Your task to perform on an android device: turn on javascript in the chrome app Image 0: 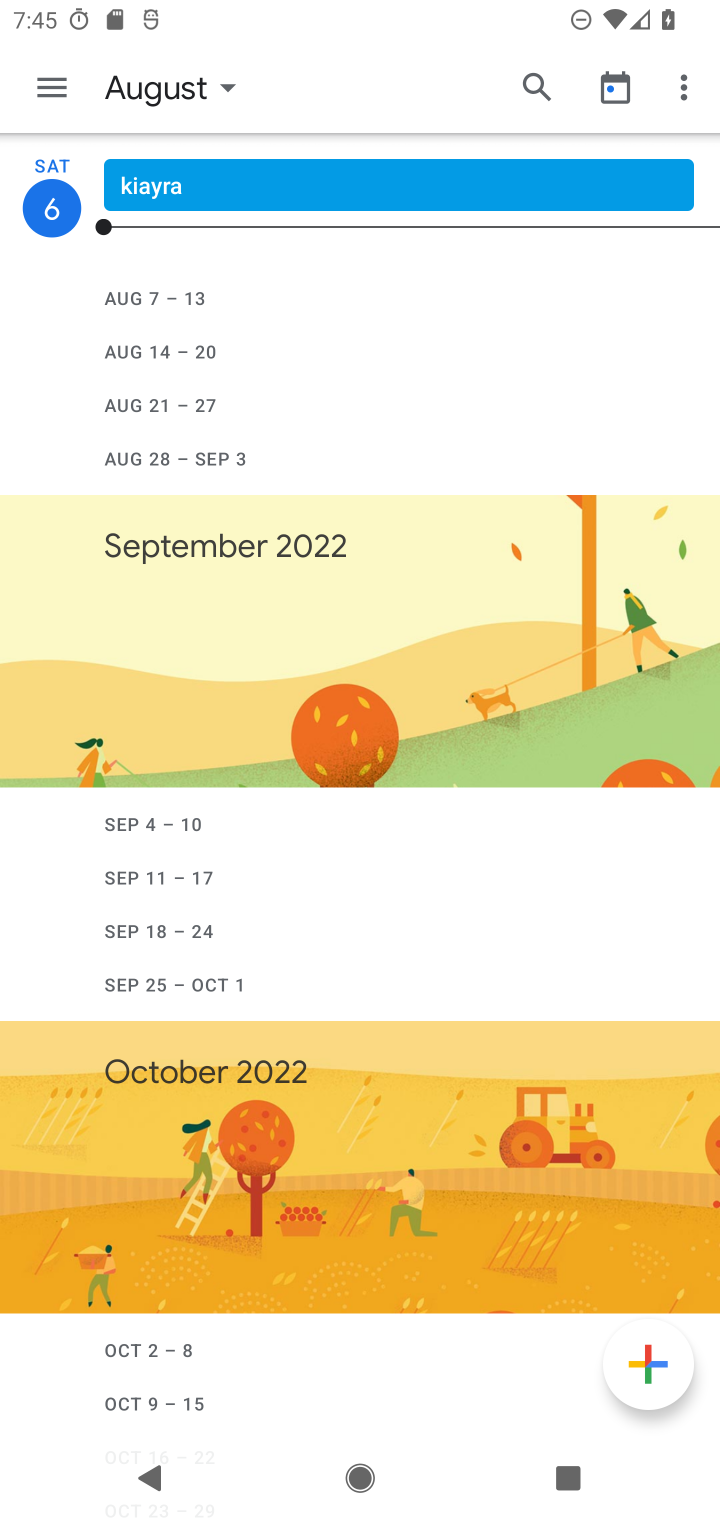
Step 0: press home button
Your task to perform on an android device: turn on javascript in the chrome app Image 1: 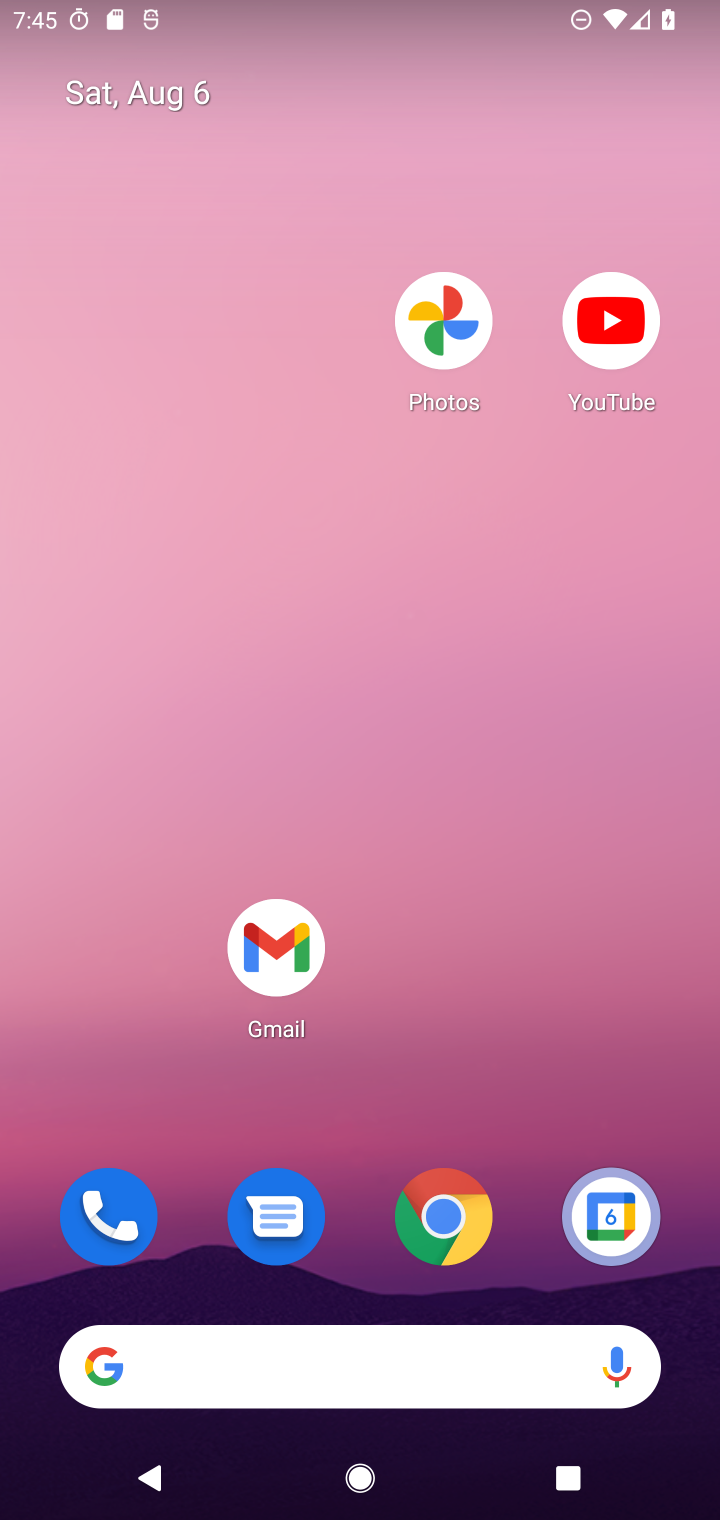
Step 1: drag from (443, 665) to (431, 126)
Your task to perform on an android device: turn on javascript in the chrome app Image 2: 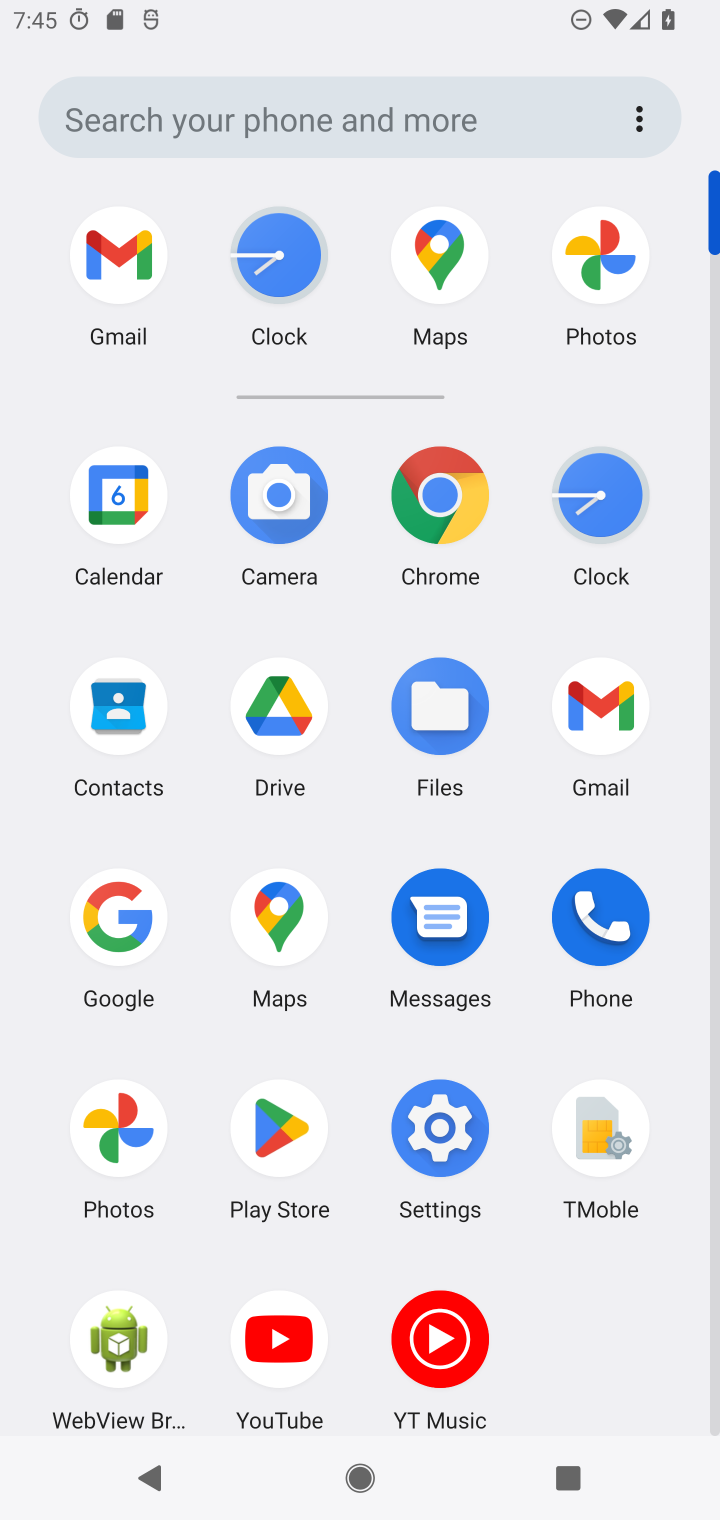
Step 2: click (430, 494)
Your task to perform on an android device: turn on javascript in the chrome app Image 3: 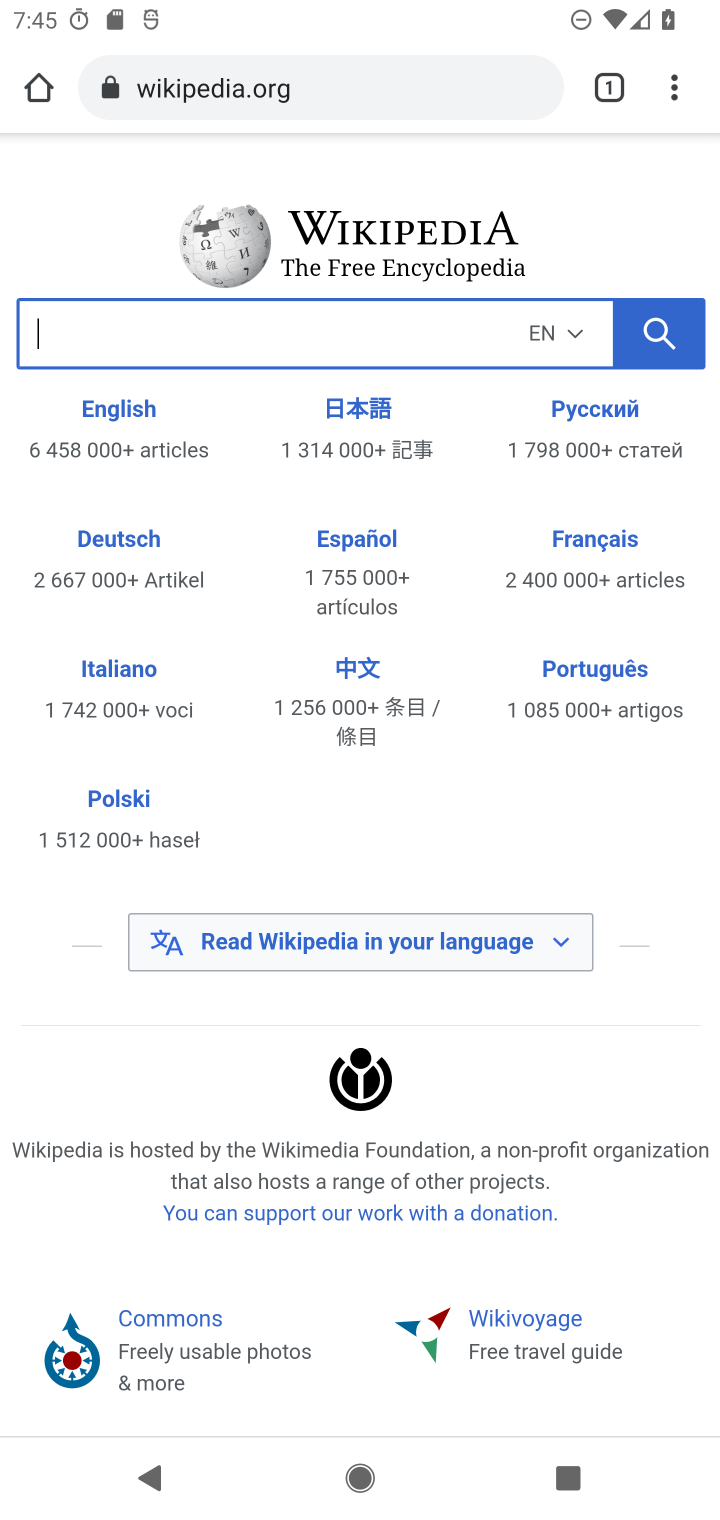
Step 3: drag from (675, 82) to (471, 1164)
Your task to perform on an android device: turn on javascript in the chrome app Image 4: 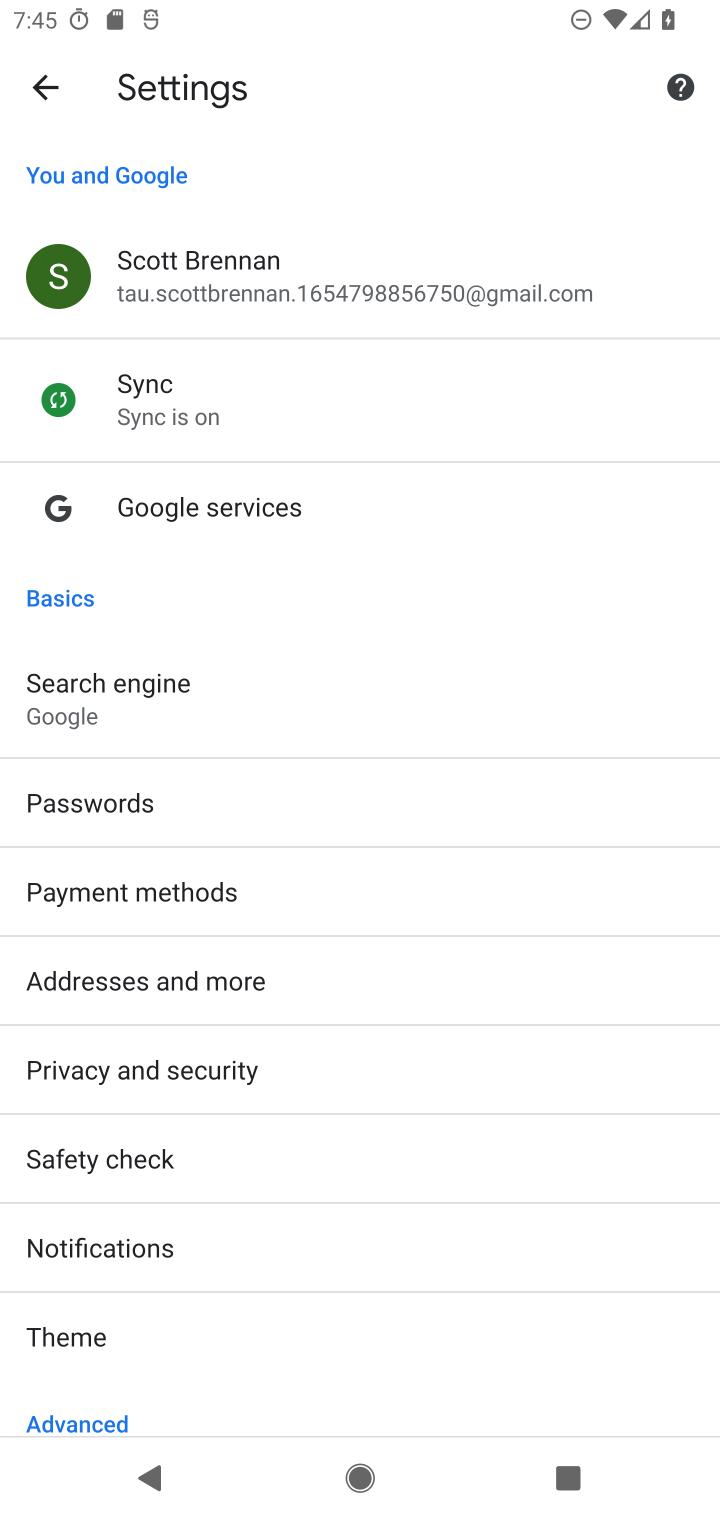
Step 4: drag from (415, 1160) to (465, 349)
Your task to perform on an android device: turn on javascript in the chrome app Image 5: 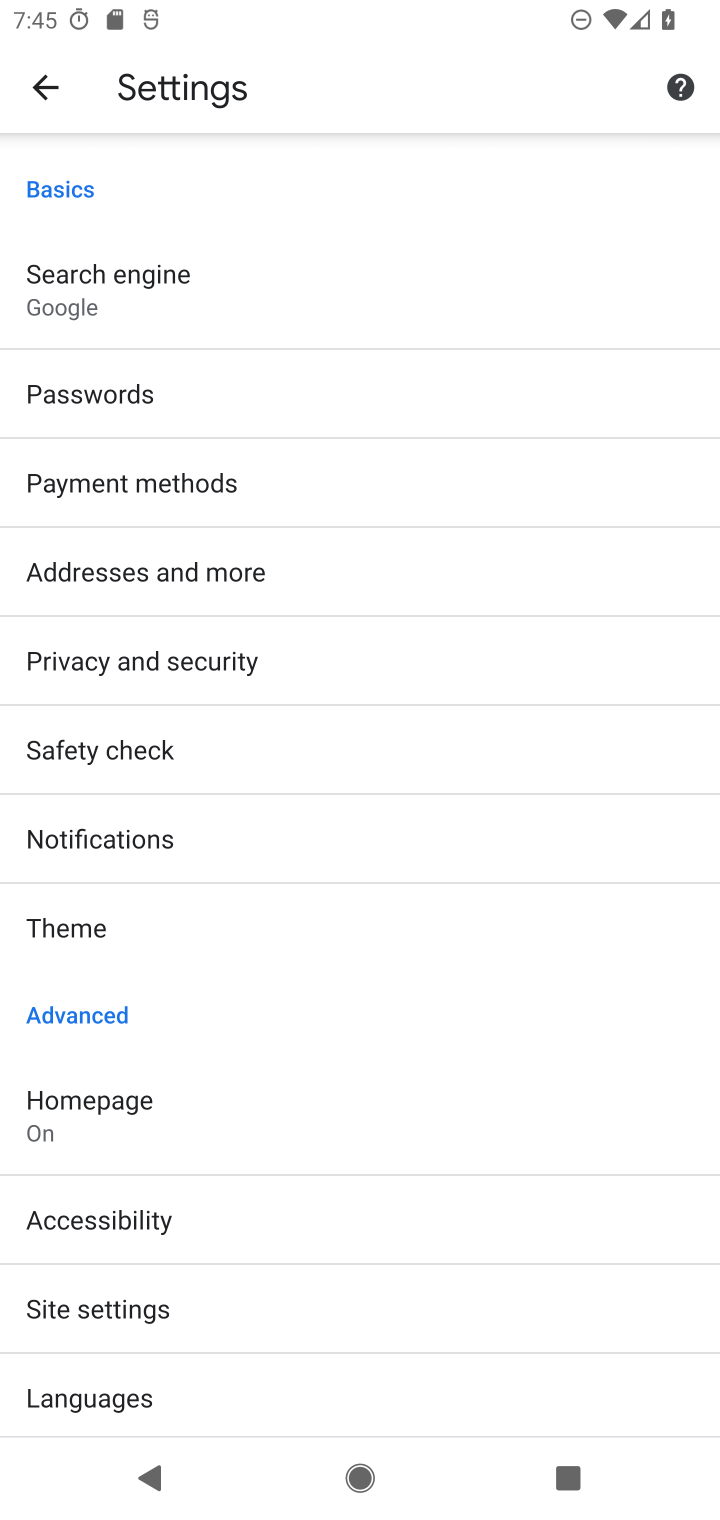
Step 5: click (139, 1320)
Your task to perform on an android device: turn on javascript in the chrome app Image 6: 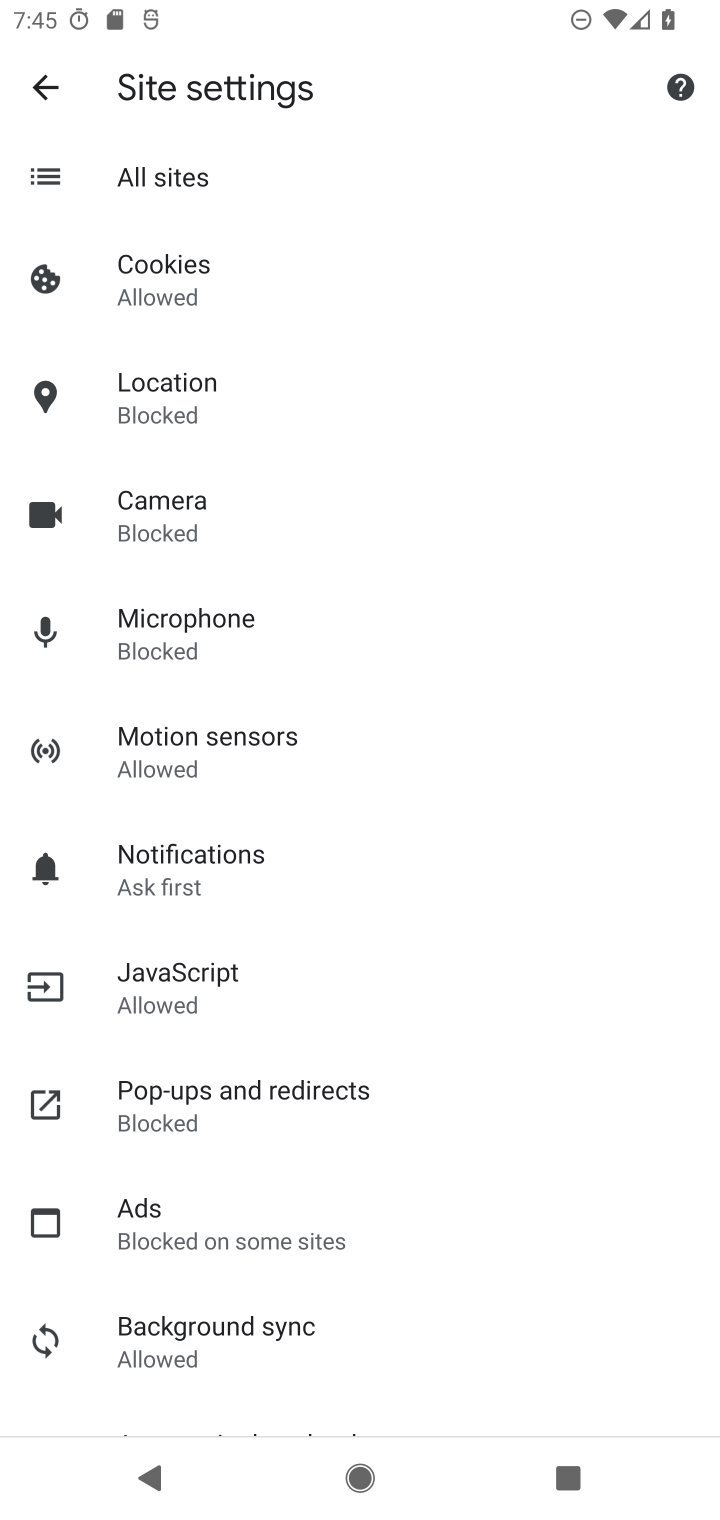
Step 6: click (148, 985)
Your task to perform on an android device: turn on javascript in the chrome app Image 7: 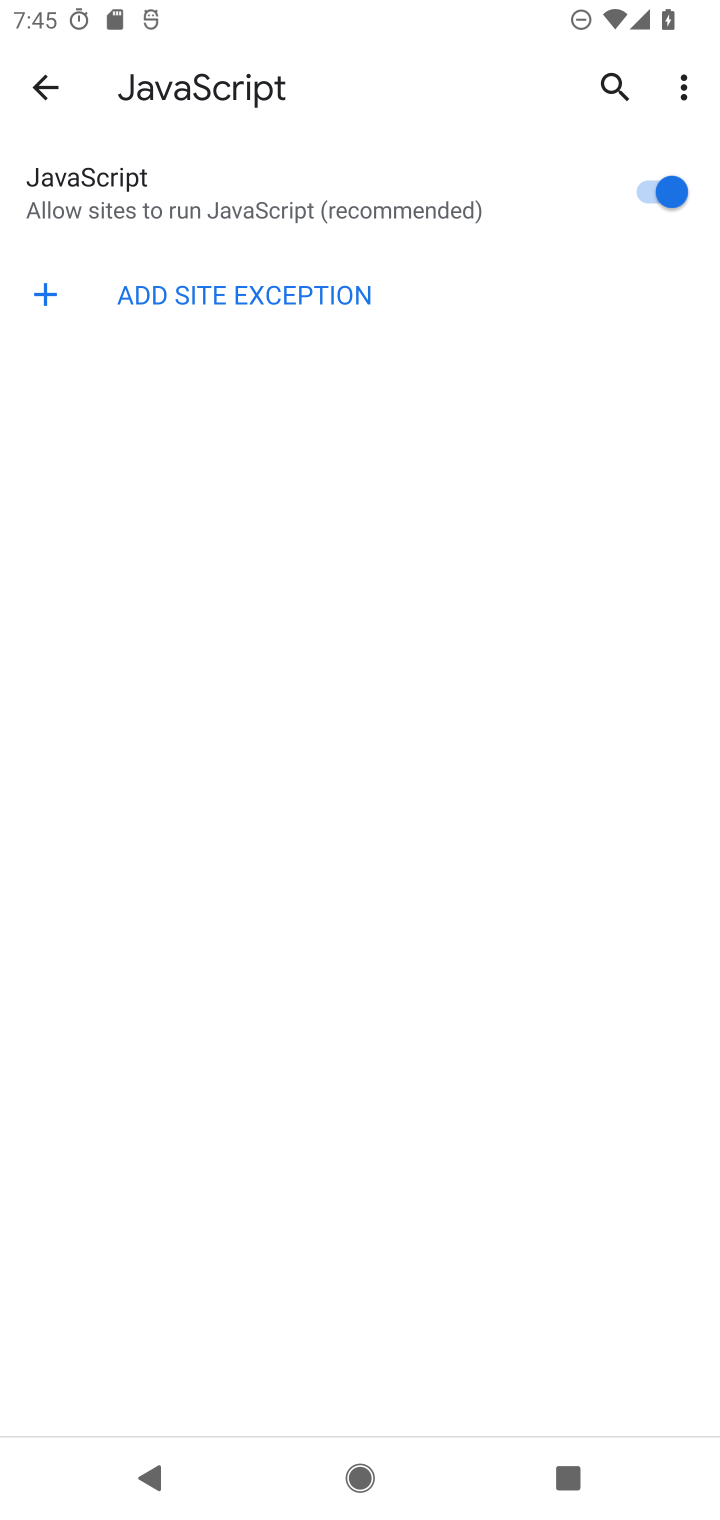
Step 7: task complete